Your task to perform on an android device: snooze an email in the gmail app Image 0: 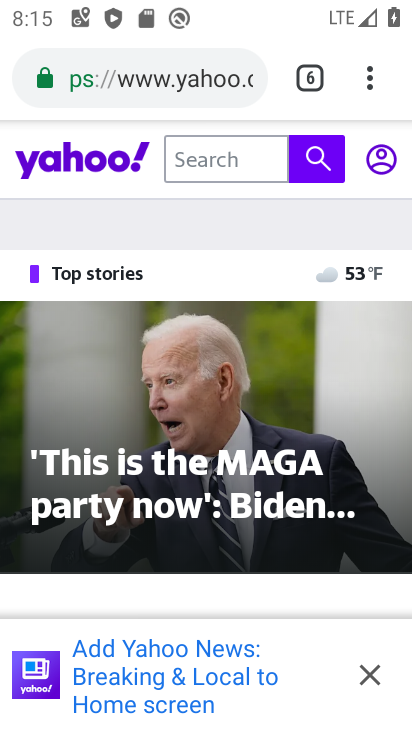
Step 0: press home button
Your task to perform on an android device: snooze an email in the gmail app Image 1: 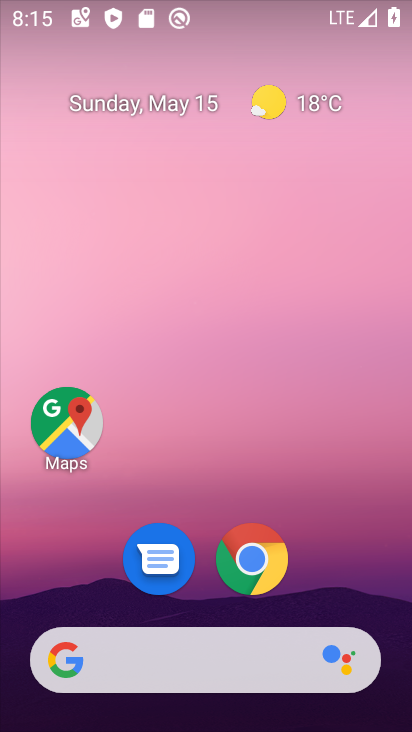
Step 1: drag from (217, 471) to (142, 78)
Your task to perform on an android device: snooze an email in the gmail app Image 2: 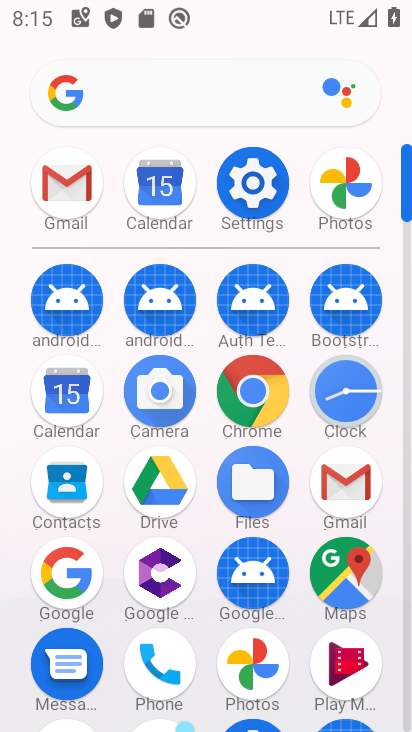
Step 2: click (335, 486)
Your task to perform on an android device: snooze an email in the gmail app Image 3: 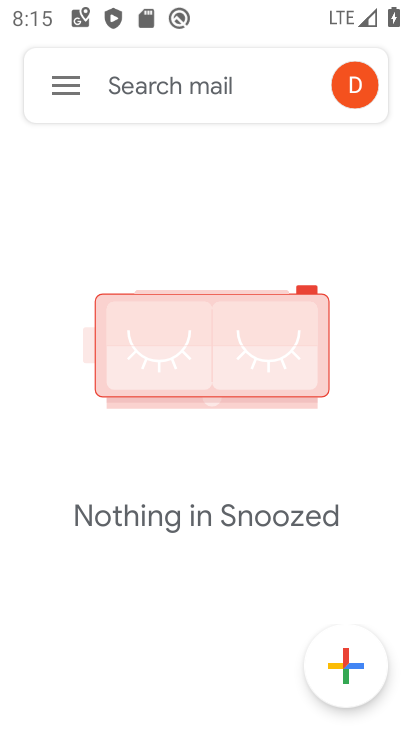
Step 3: click (57, 96)
Your task to perform on an android device: snooze an email in the gmail app Image 4: 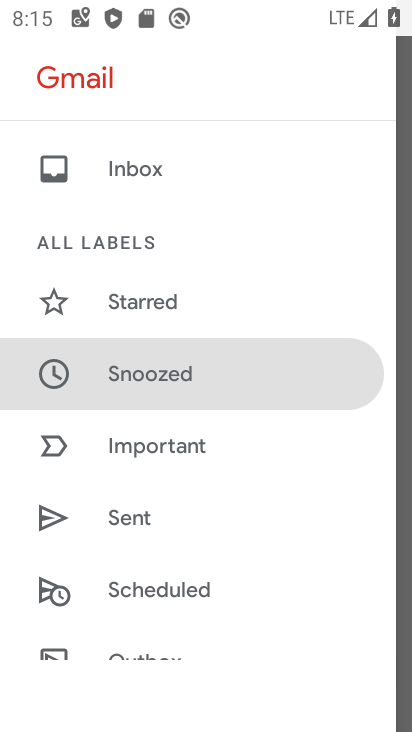
Step 4: click (130, 165)
Your task to perform on an android device: snooze an email in the gmail app Image 5: 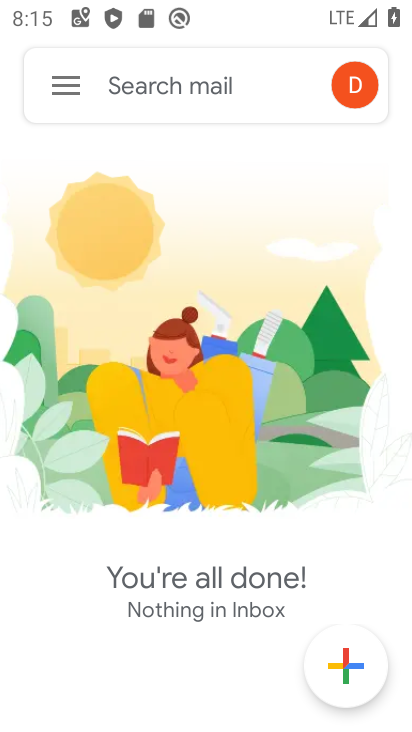
Step 5: task complete